Your task to perform on an android device: turn off location Image 0: 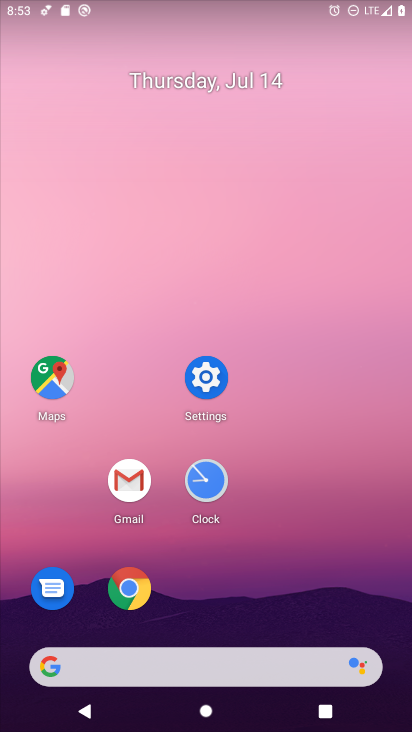
Step 0: click (220, 373)
Your task to perform on an android device: turn off location Image 1: 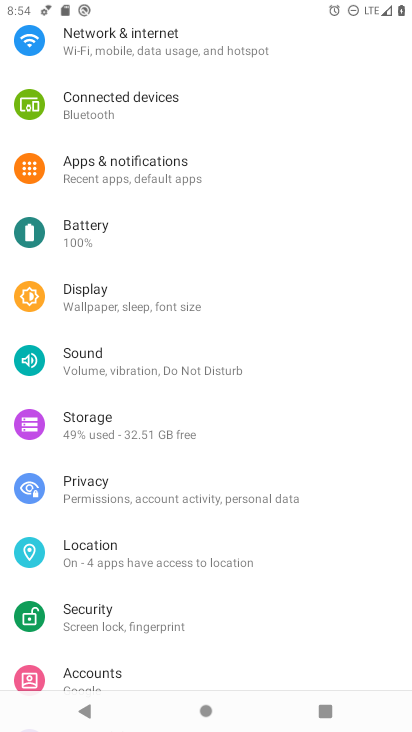
Step 1: click (94, 543)
Your task to perform on an android device: turn off location Image 2: 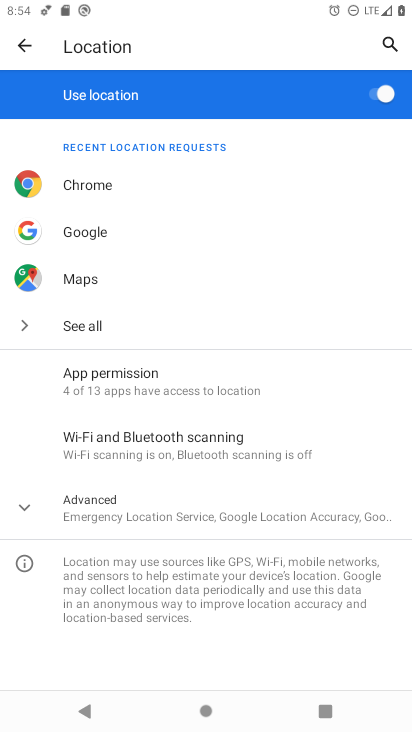
Step 2: click (368, 92)
Your task to perform on an android device: turn off location Image 3: 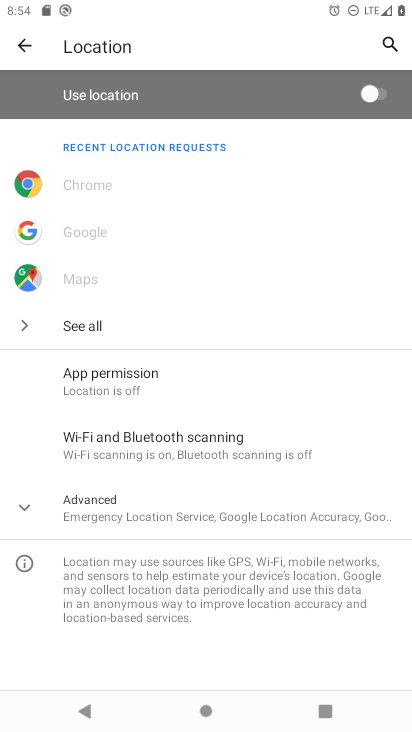
Step 3: task complete